Your task to perform on an android device: turn off notifications settings in the gmail app Image 0: 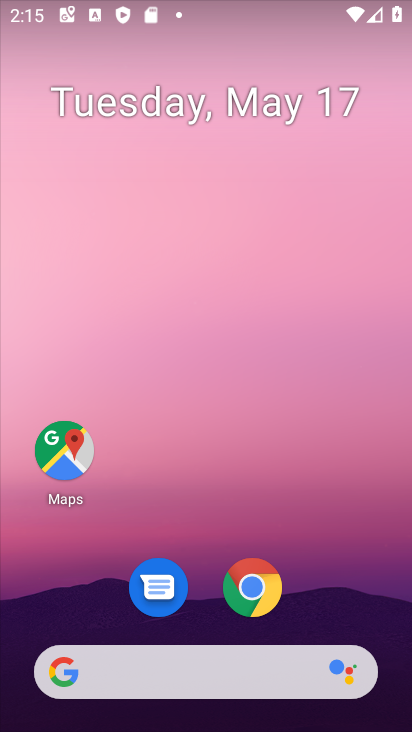
Step 0: drag from (202, 629) to (403, 261)
Your task to perform on an android device: turn off notifications settings in the gmail app Image 1: 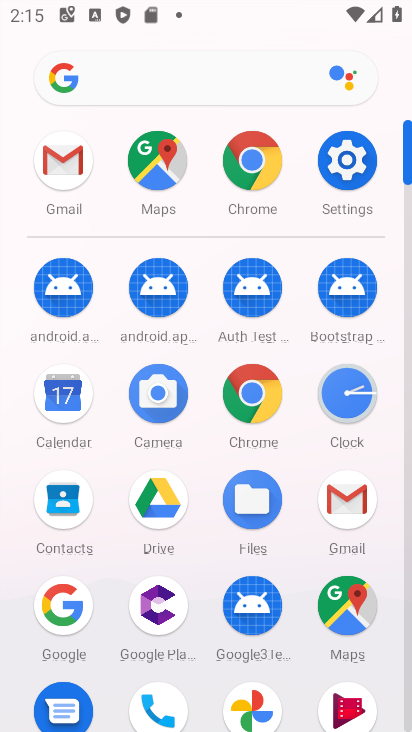
Step 1: click (333, 512)
Your task to perform on an android device: turn off notifications settings in the gmail app Image 2: 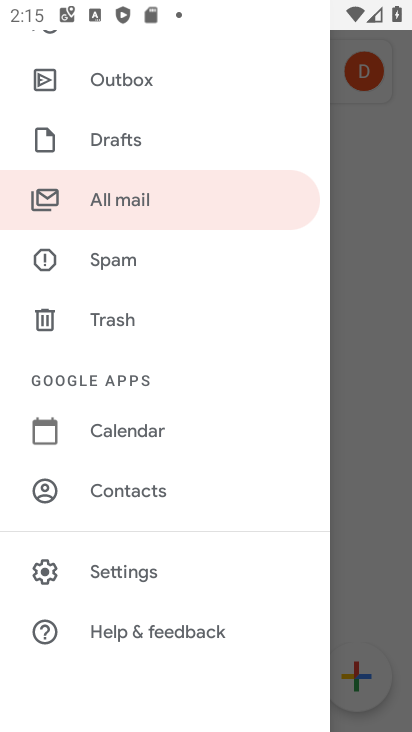
Step 2: click (157, 574)
Your task to perform on an android device: turn off notifications settings in the gmail app Image 3: 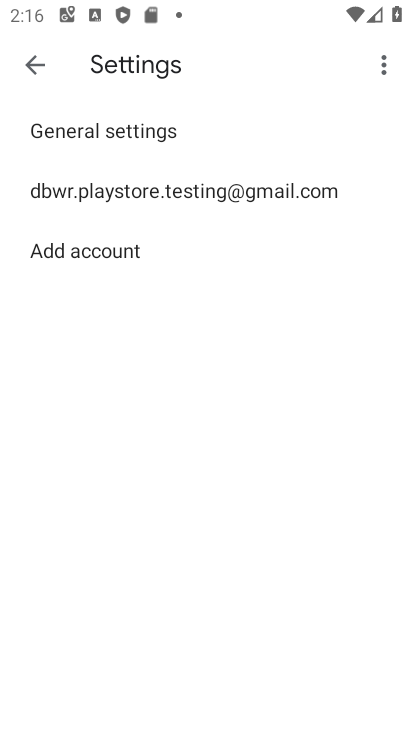
Step 3: click (148, 184)
Your task to perform on an android device: turn off notifications settings in the gmail app Image 4: 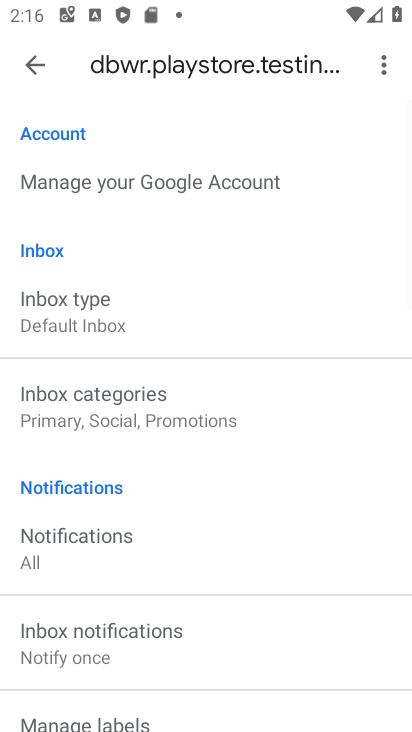
Step 4: drag from (92, 618) to (240, 142)
Your task to perform on an android device: turn off notifications settings in the gmail app Image 5: 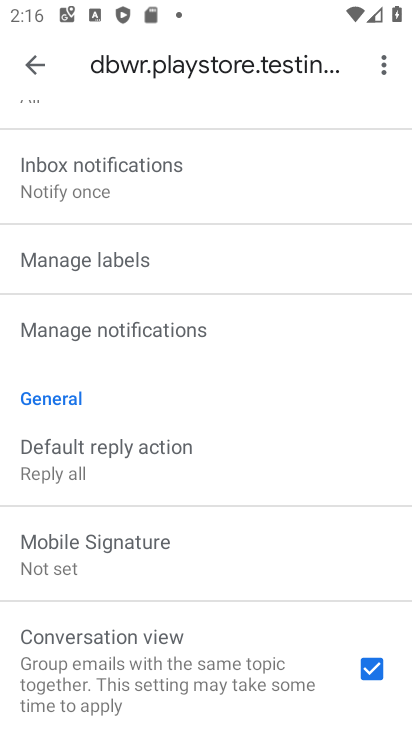
Step 5: click (210, 316)
Your task to perform on an android device: turn off notifications settings in the gmail app Image 6: 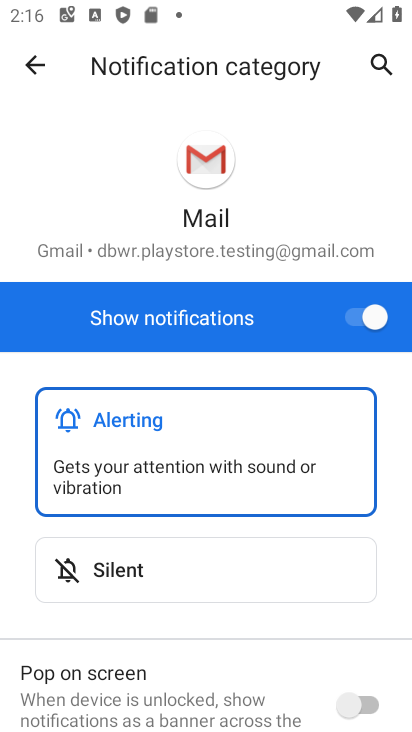
Step 6: drag from (213, 629) to (400, 106)
Your task to perform on an android device: turn off notifications settings in the gmail app Image 7: 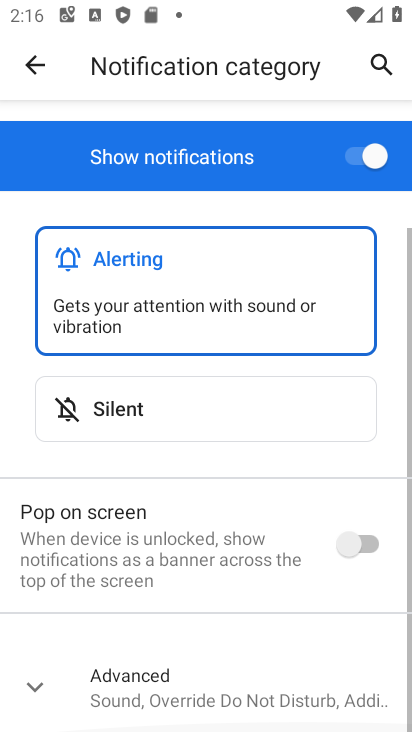
Step 7: drag from (223, 519) to (325, 123)
Your task to perform on an android device: turn off notifications settings in the gmail app Image 8: 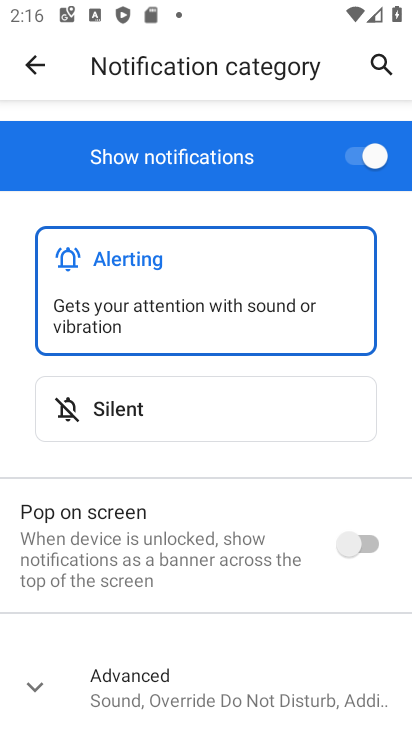
Step 8: click (369, 149)
Your task to perform on an android device: turn off notifications settings in the gmail app Image 9: 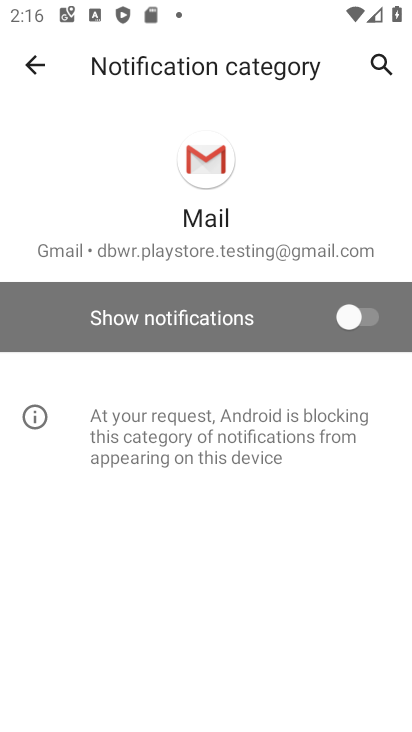
Step 9: task complete